Your task to perform on an android device: Search for "usb-c to usb-a" on target, select the first entry, add it to the cart, then select checkout. Image 0: 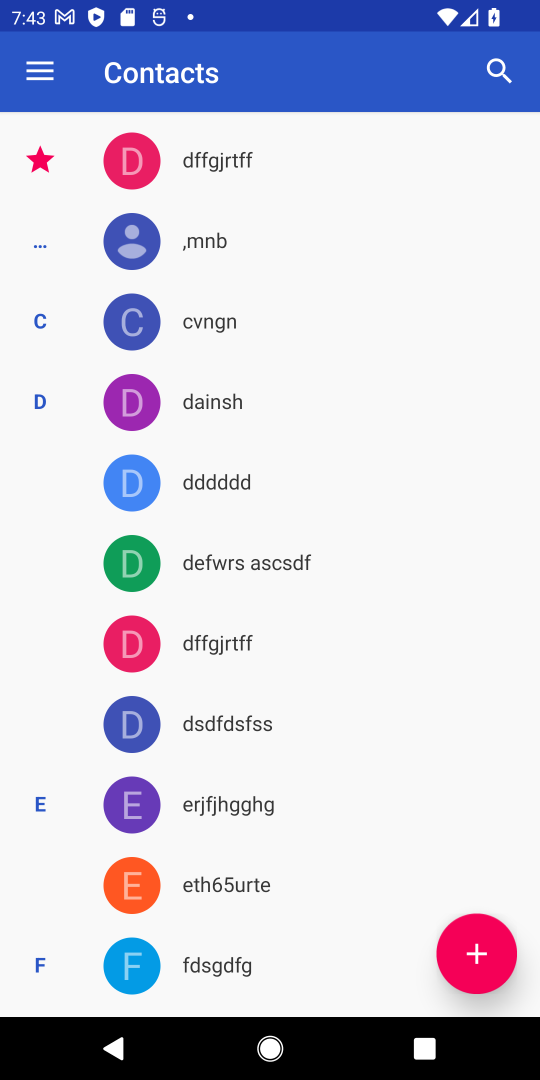
Step 0: press home button
Your task to perform on an android device: Search for "usb-c to usb-a" on target, select the first entry, add it to the cart, then select checkout. Image 1: 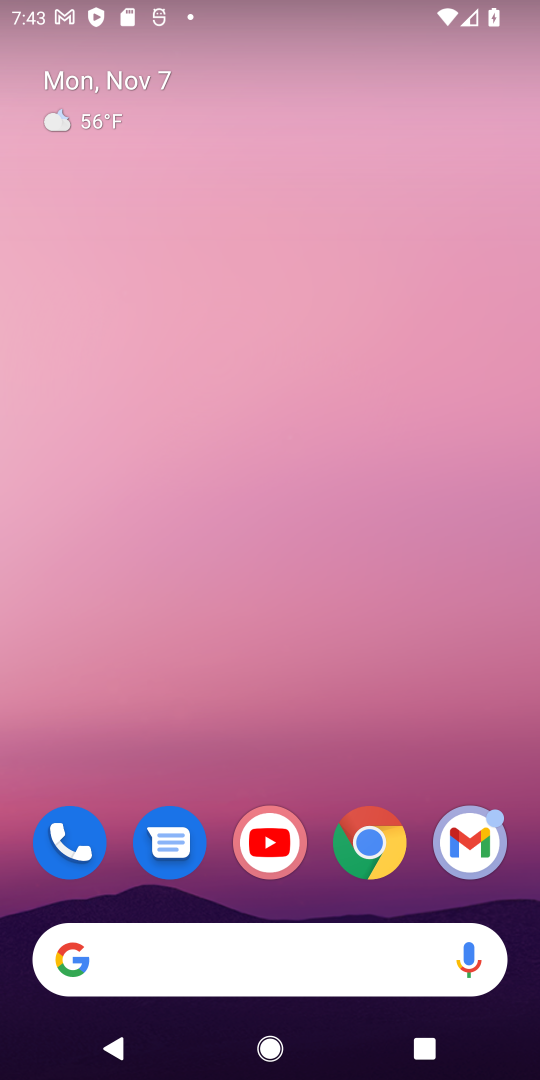
Step 1: click (368, 848)
Your task to perform on an android device: Search for "usb-c to usb-a" on target, select the first entry, add it to the cart, then select checkout. Image 2: 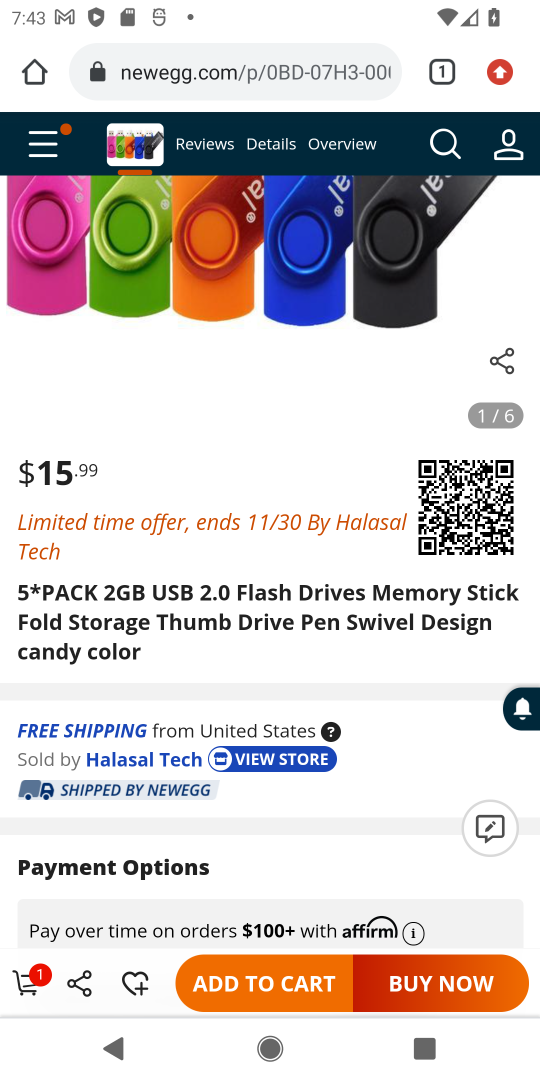
Step 2: click (243, 61)
Your task to perform on an android device: Search for "usb-c to usb-a" on target, select the first entry, add it to the cart, then select checkout. Image 3: 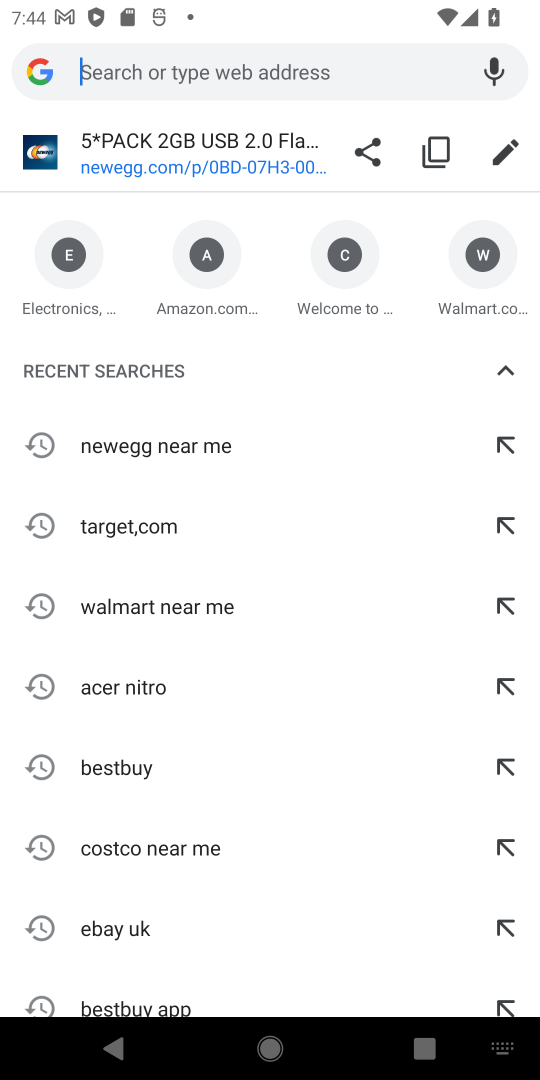
Step 3: type "target"
Your task to perform on an android device: Search for "usb-c to usb-a" on target, select the first entry, add it to the cart, then select checkout. Image 4: 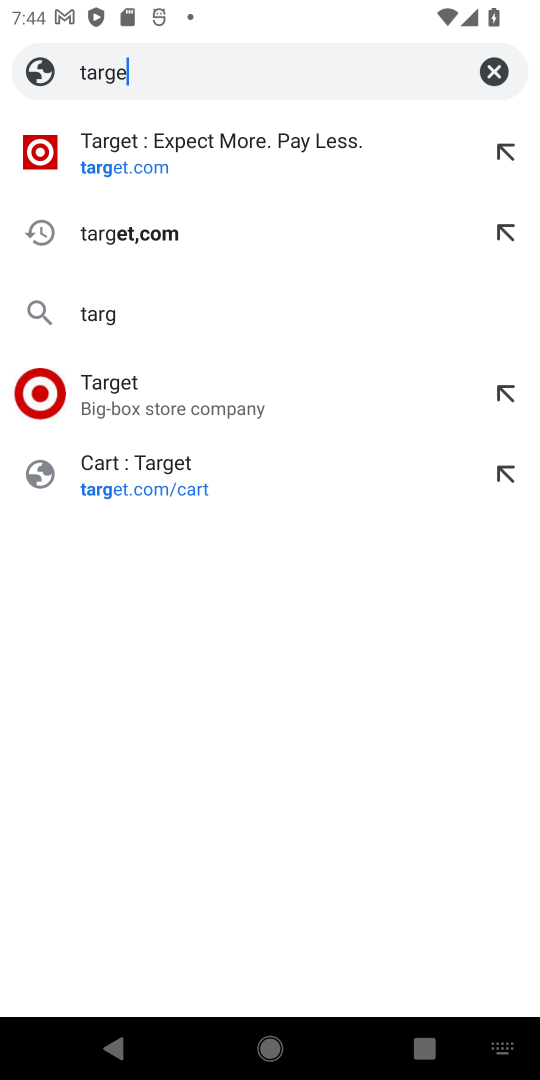
Step 4: press enter
Your task to perform on an android device: Search for "usb-c to usb-a" on target, select the first entry, add it to the cart, then select checkout. Image 5: 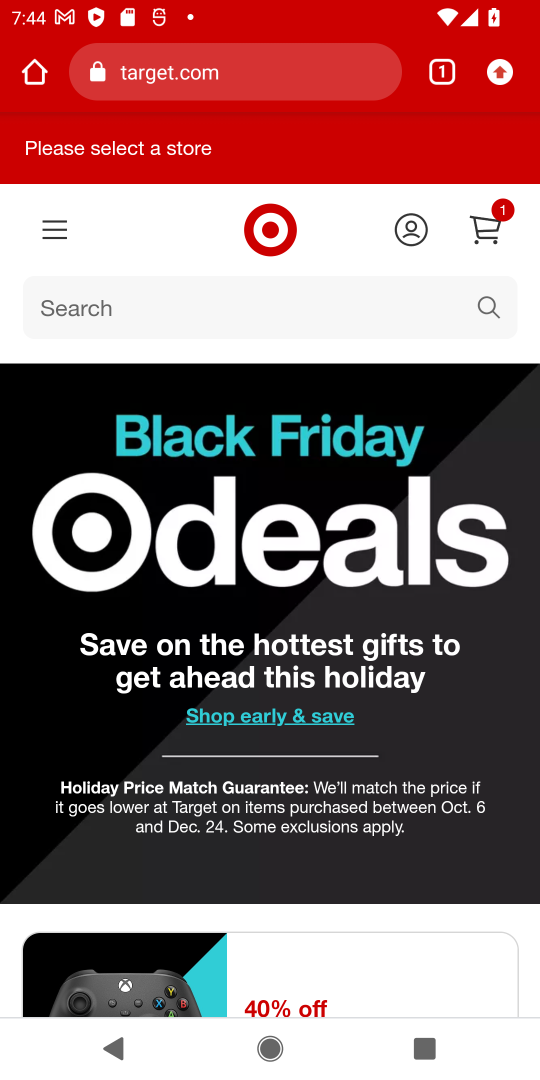
Step 5: click (216, 308)
Your task to perform on an android device: Search for "usb-c to usb-a" on target, select the first entry, add it to the cart, then select checkout. Image 6: 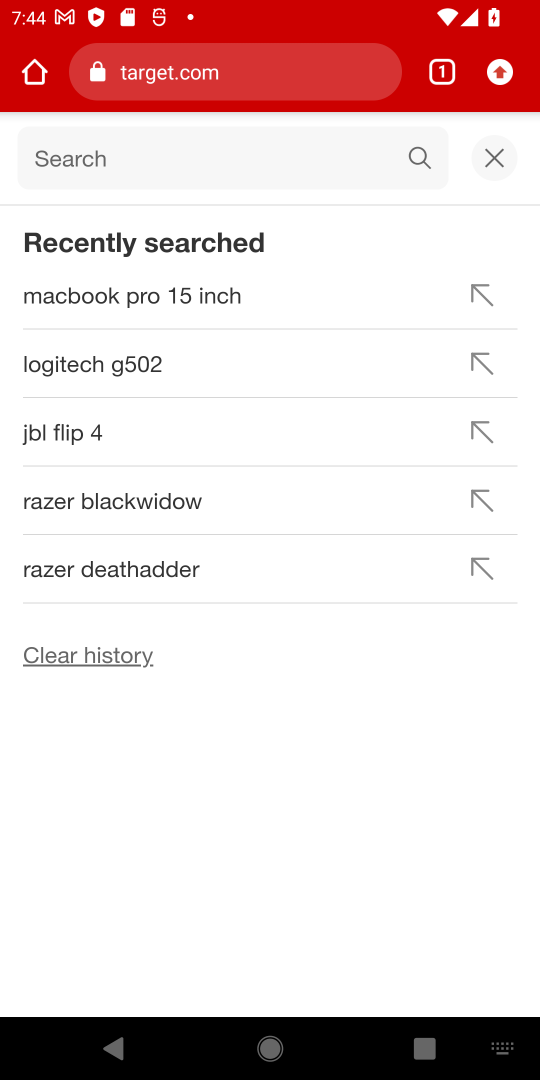
Step 6: type "usb-c to usb-a"
Your task to perform on an android device: Search for "usb-c to usb-a" on target, select the first entry, add it to the cart, then select checkout. Image 7: 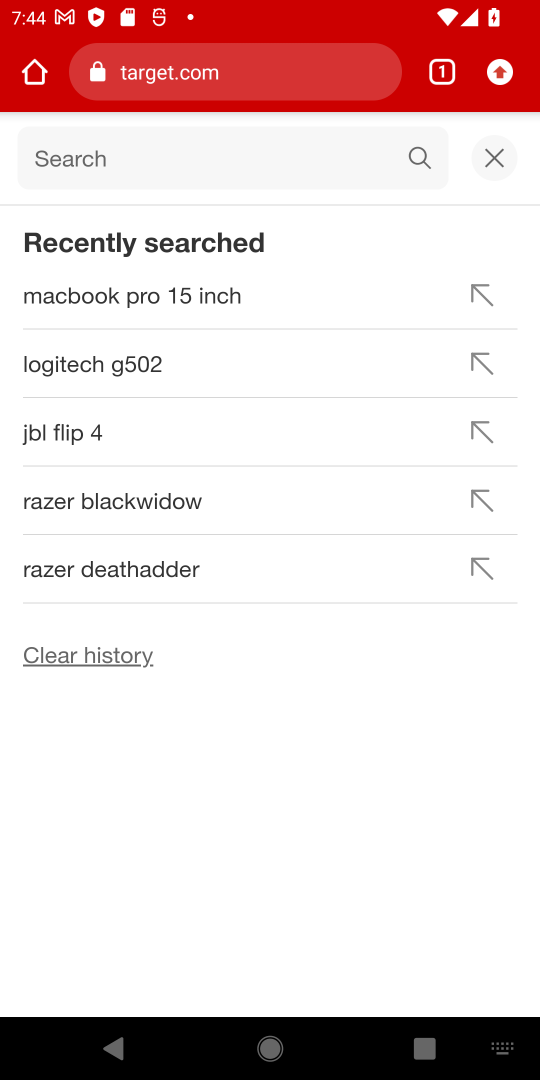
Step 7: press enter
Your task to perform on an android device: Search for "usb-c to usb-a" on target, select the first entry, add it to the cart, then select checkout. Image 8: 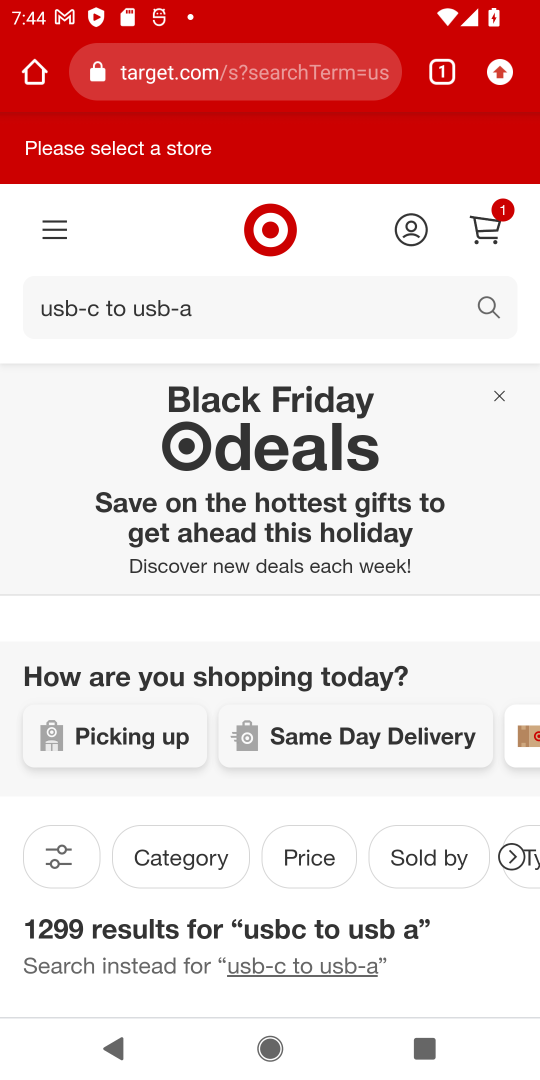
Step 8: task complete